Your task to perform on an android device: all mails in gmail Image 0: 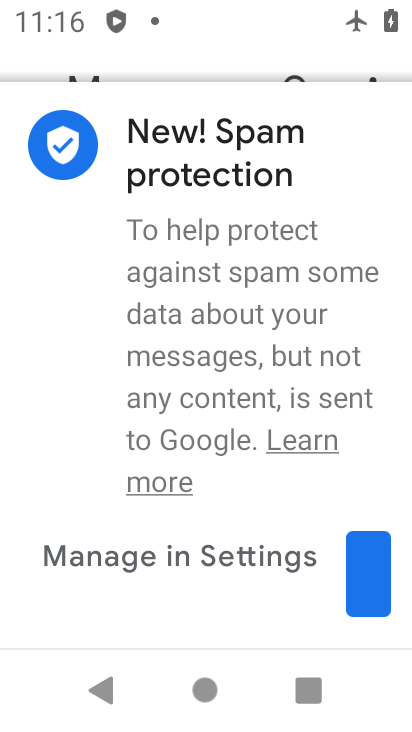
Step 0: press home button
Your task to perform on an android device: all mails in gmail Image 1: 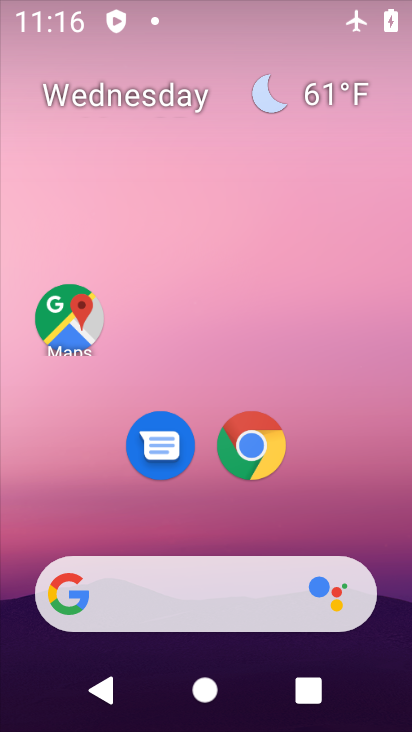
Step 1: drag from (375, 533) to (353, 144)
Your task to perform on an android device: all mails in gmail Image 2: 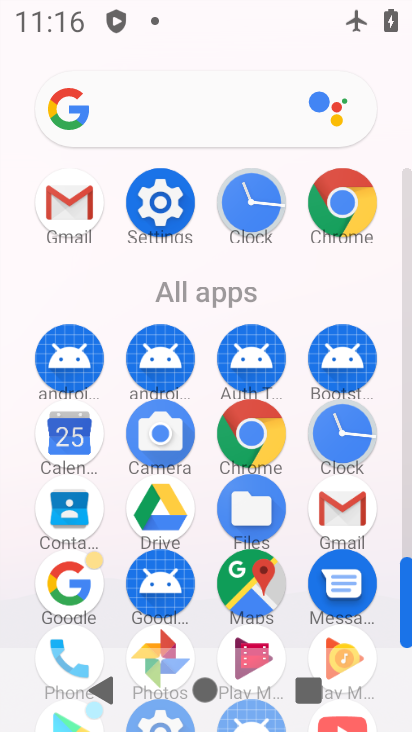
Step 2: drag from (279, 529) to (284, 259)
Your task to perform on an android device: all mails in gmail Image 3: 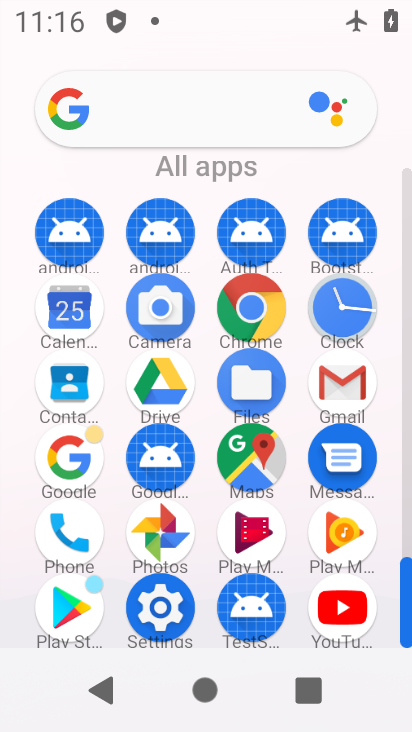
Step 3: click (324, 363)
Your task to perform on an android device: all mails in gmail Image 4: 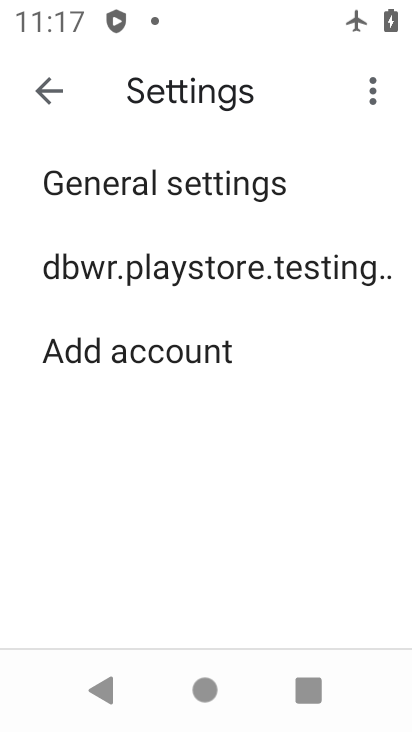
Step 4: click (289, 270)
Your task to perform on an android device: all mails in gmail Image 5: 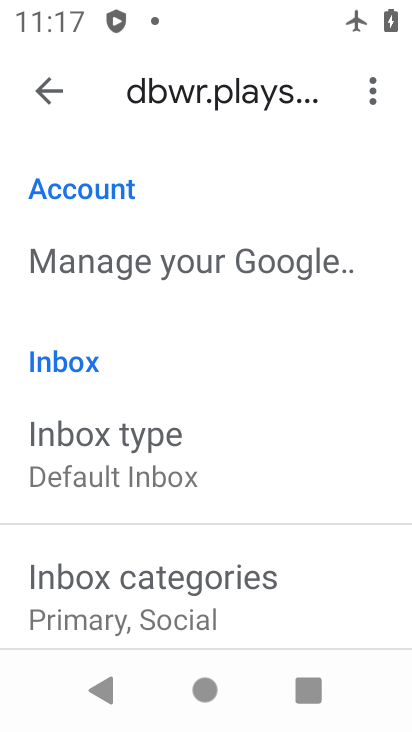
Step 5: task complete